Your task to perform on an android device: turn off location Image 0: 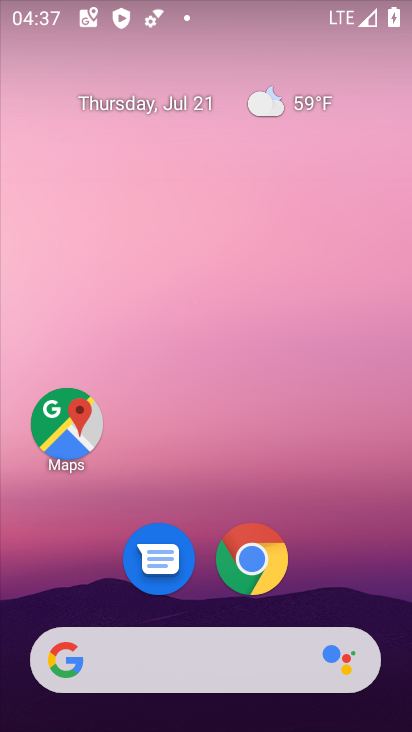
Step 0: drag from (100, 505) to (229, 0)
Your task to perform on an android device: turn off location Image 1: 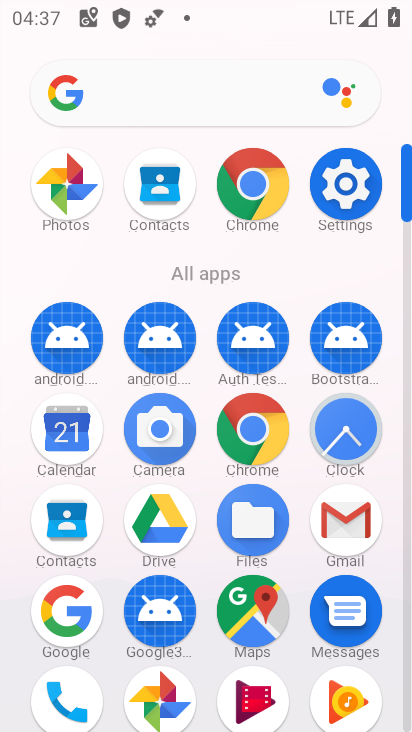
Step 1: click (342, 187)
Your task to perform on an android device: turn off location Image 2: 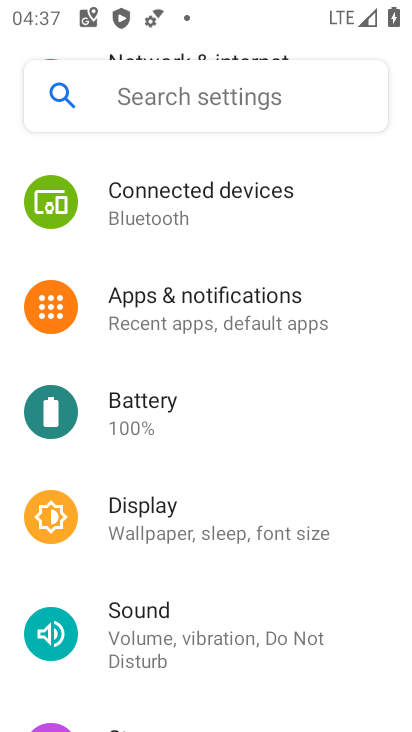
Step 2: drag from (190, 658) to (258, 179)
Your task to perform on an android device: turn off location Image 3: 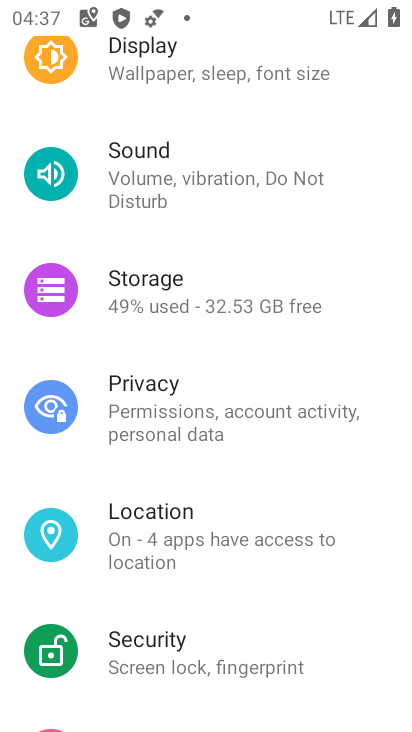
Step 3: click (146, 539)
Your task to perform on an android device: turn off location Image 4: 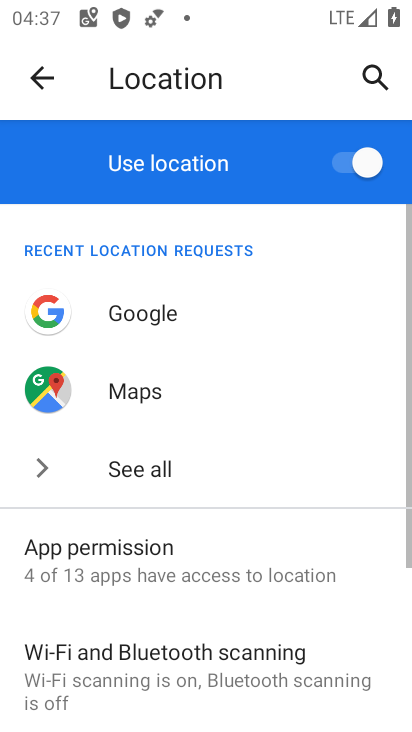
Step 4: click (359, 166)
Your task to perform on an android device: turn off location Image 5: 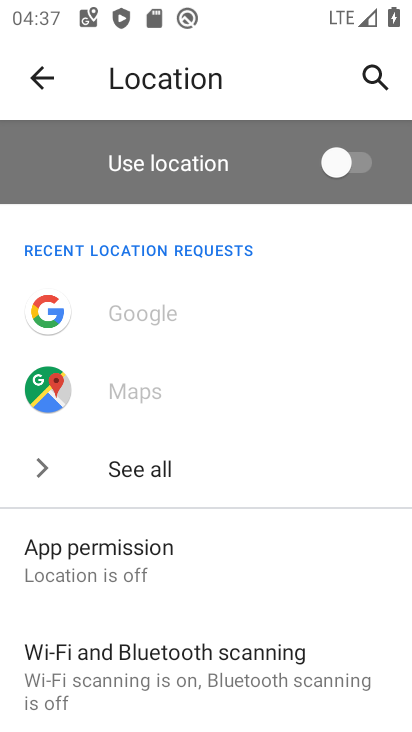
Step 5: task complete